Your task to perform on an android device: Search for seafood restaurants on Google Maps Image 0: 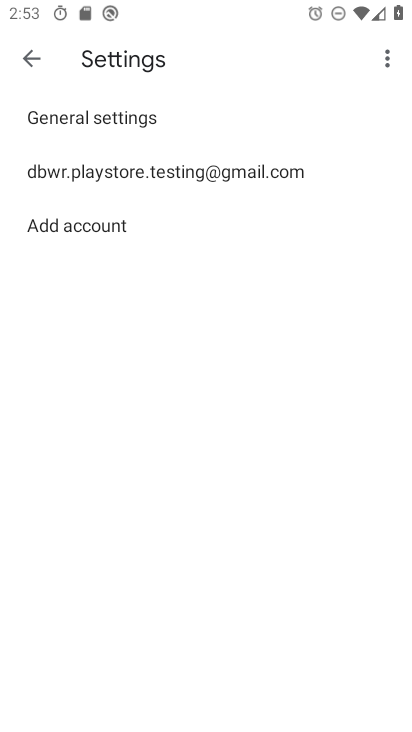
Step 0: press home button
Your task to perform on an android device: Search for seafood restaurants on Google Maps Image 1: 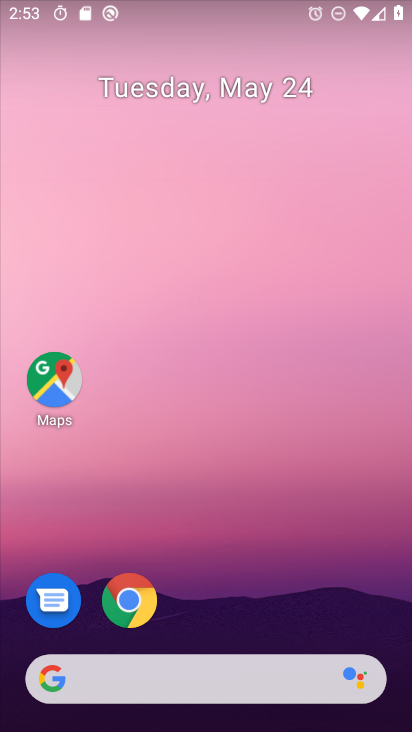
Step 1: click (60, 378)
Your task to perform on an android device: Search for seafood restaurants on Google Maps Image 2: 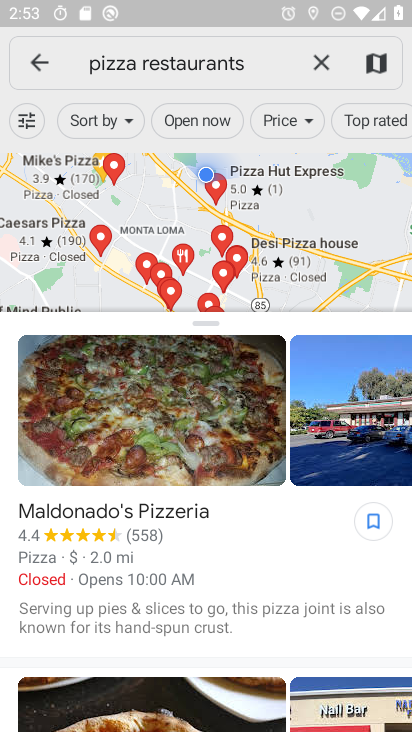
Step 2: click (265, 58)
Your task to perform on an android device: Search for seafood restaurants on Google Maps Image 3: 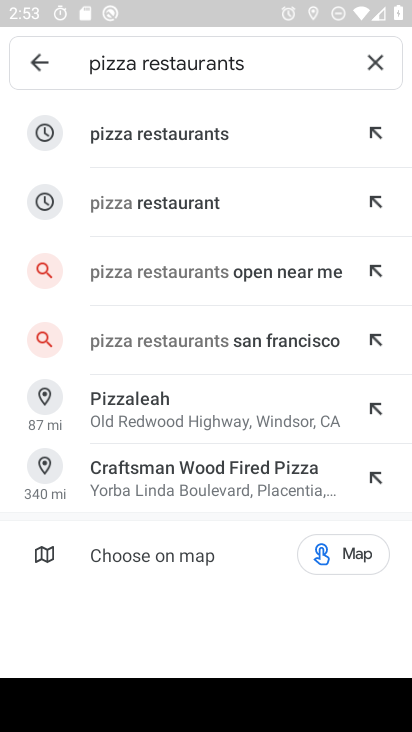
Step 3: click (371, 54)
Your task to perform on an android device: Search for seafood restaurants on Google Maps Image 4: 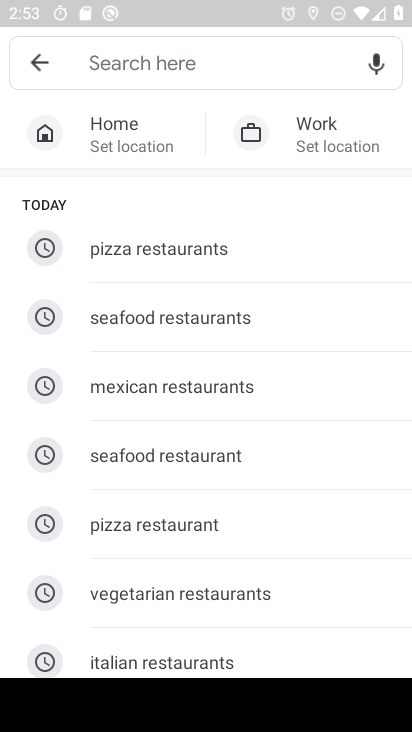
Step 4: type "seafood restaurants"
Your task to perform on an android device: Search for seafood restaurants on Google Maps Image 5: 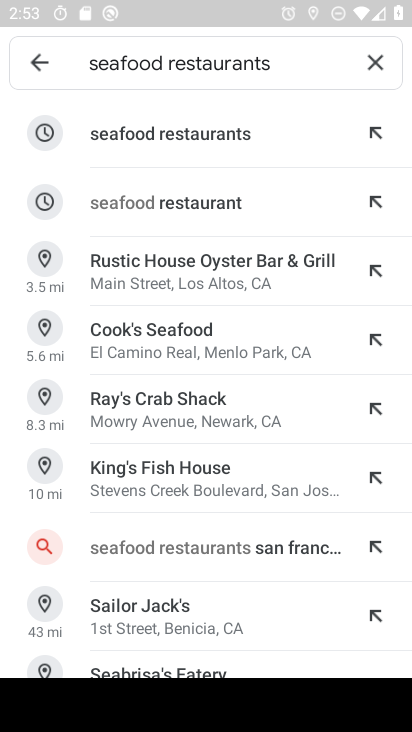
Step 5: click (189, 139)
Your task to perform on an android device: Search for seafood restaurants on Google Maps Image 6: 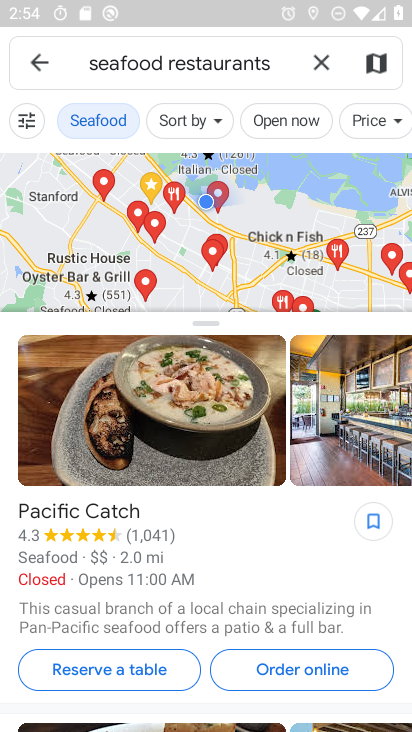
Step 6: task complete